Your task to perform on an android device: Open Youtube and go to "Your channel" Image 0: 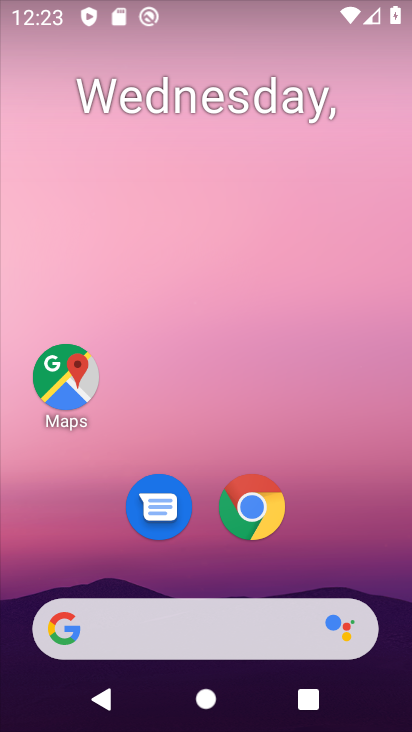
Step 0: drag from (269, 308) to (293, 71)
Your task to perform on an android device: Open Youtube and go to "Your channel" Image 1: 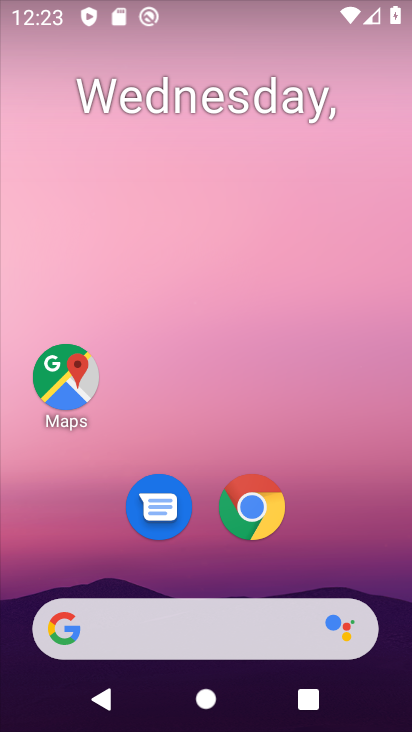
Step 1: drag from (199, 559) to (265, 333)
Your task to perform on an android device: Open Youtube and go to "Your channel" Image 2: 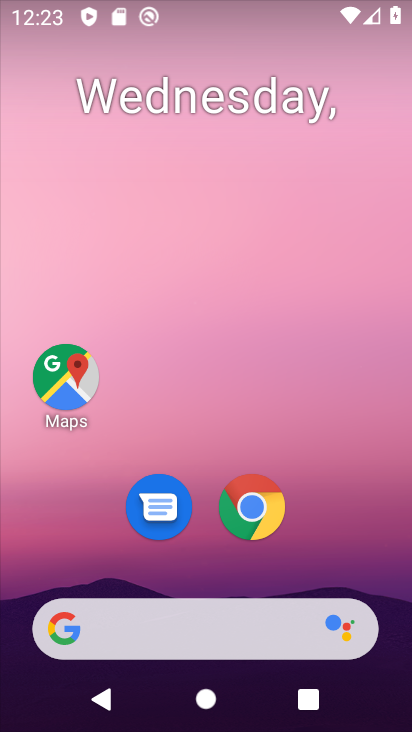
Step 2: drag from (239, 606) to (265, 152)
Your task to perform on an android device: Open Youtube and go to "Your channel" Image 3: 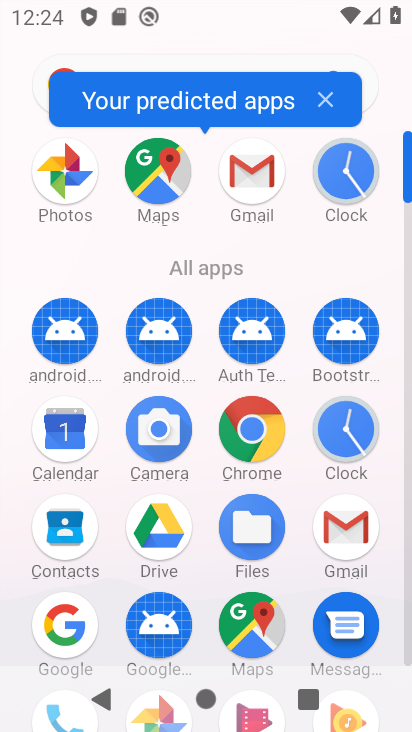
Step 3: drag from (276, 679) to (298, 260)
Your task to perform on an android device: Open Youtube and go to "Your channel" Image 4: 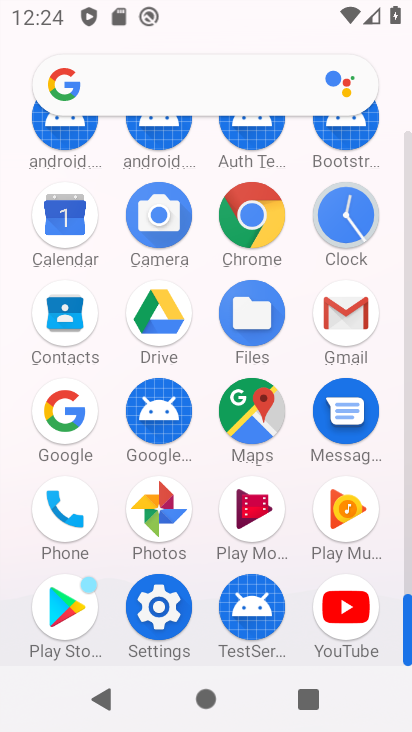
Step 4: click (350, 614)
Your task to perform on an android device: Open Youtube and go to "Your channel" Image 5: 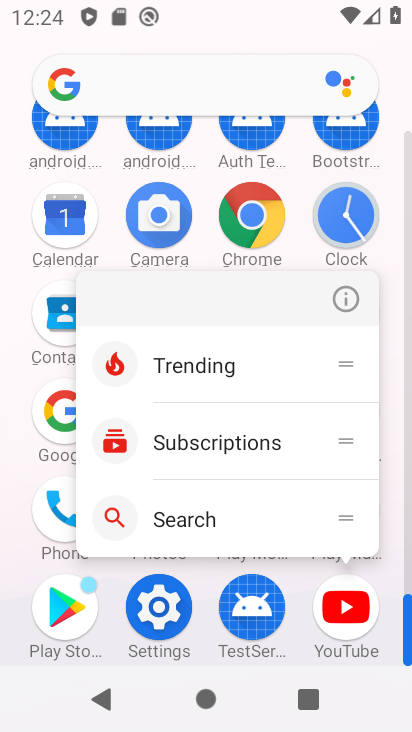
Step 5: click (355, 611)
Your task to perform on an android device: Open Youtube and go to "Your channel" Image 6: 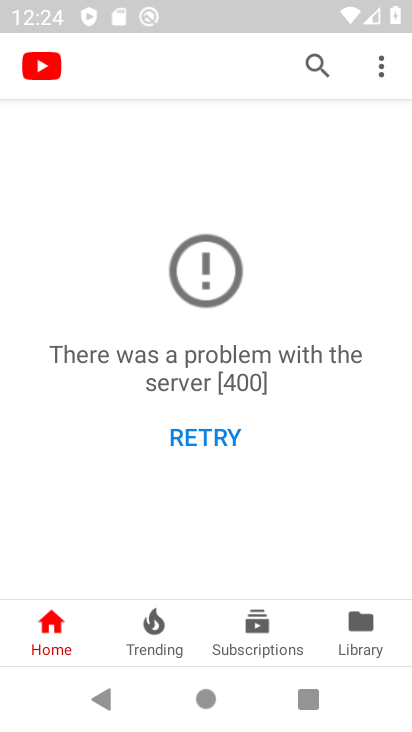
Step 6: click (379, 70)
Your task to perform on an android device: Open Youtube and go to "Your channel" Image 7: 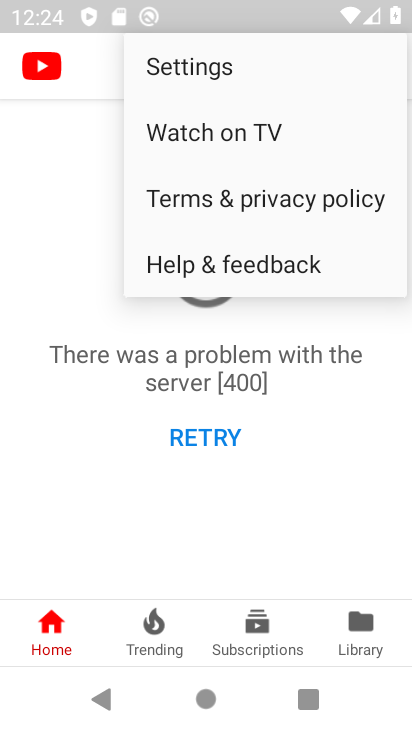
Step 7: click (186, 70)
Your task to perform on an android device: Open Youtube and go to "Your channel" Image 8: 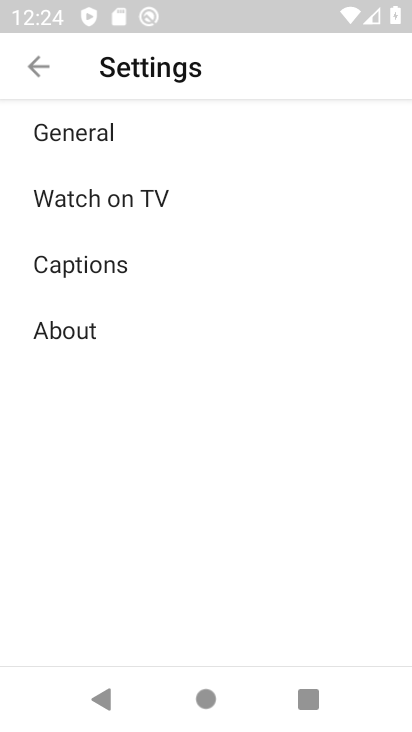
Step 8: task complete